Your task to perform on an android device: toggle translation in the chrome app Image 0: 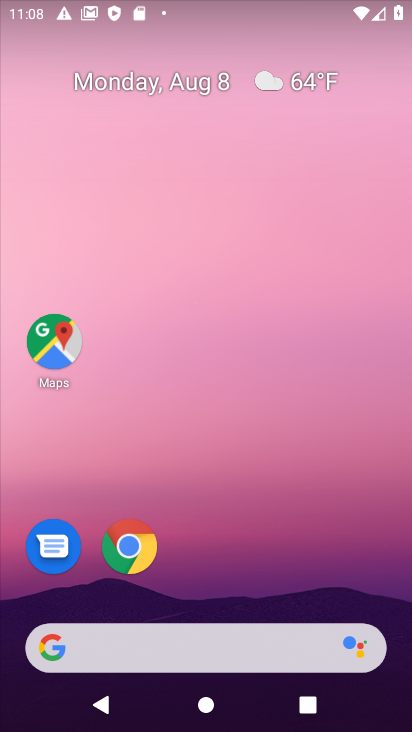
Step 0: press home button
Your task to perform on an android device: toggle translation in the chrome app Image 1: 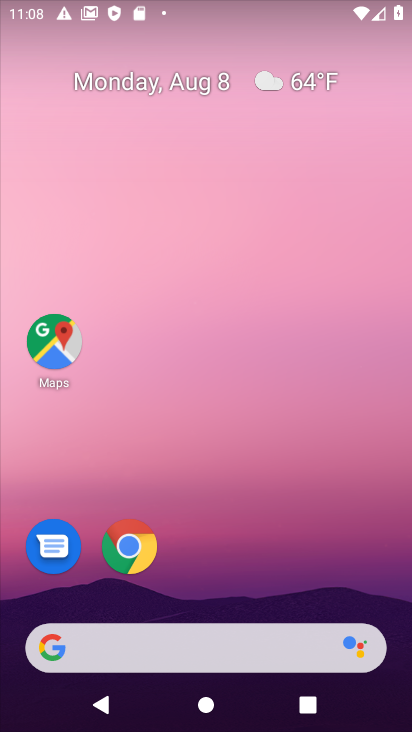
Step 1: click (211, 96)
Your task to perform on an android device: toggle translation in the chrome app Image 2: 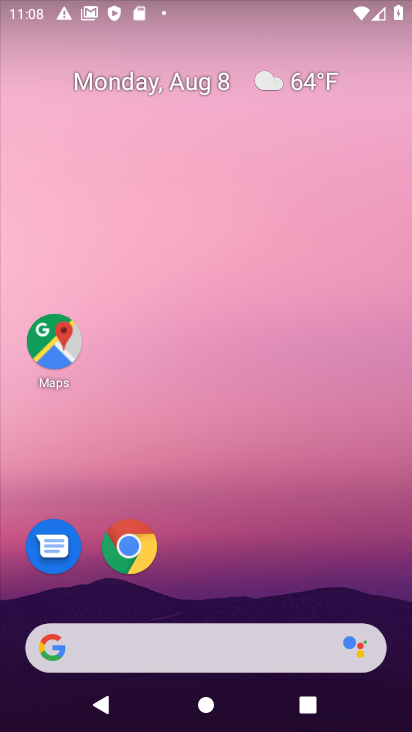
Step 2: drag from (220, 596) to (250, 1)
Your task to perform on an android device: toggle translation in the chrome app Image 3: 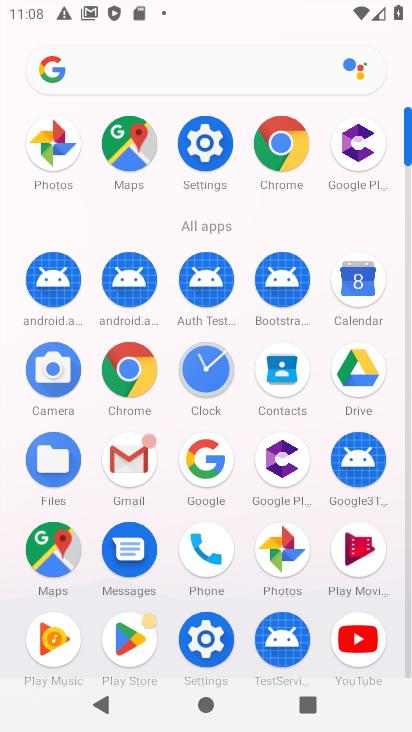
Step 3: click (124, 361)
Your task to perform on an android device: toggle translation in the chrome app Image 4: 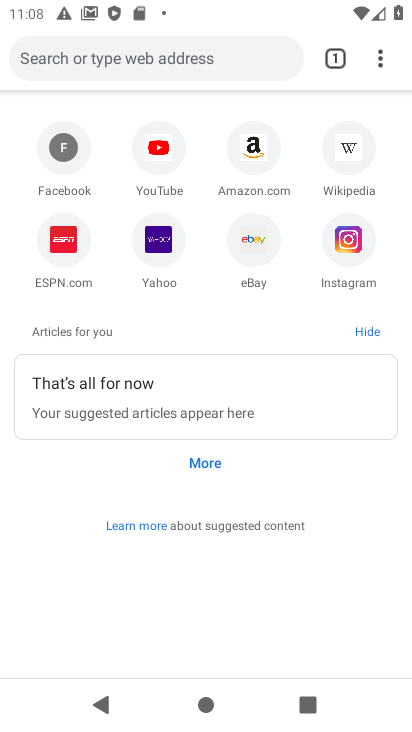
Step 4: click (375, 52)
Your task to perform on an android device: toggle translation in the chrome app Image 5: 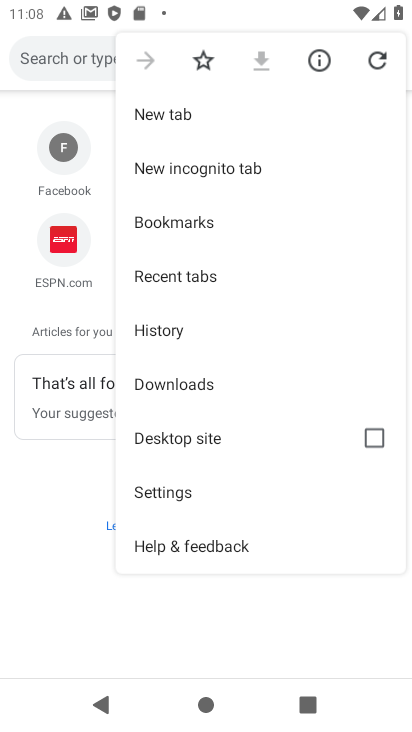
Step 5: click (206, 493)
Your task to perform on an android device: toggle translation in the chrome app Image 6: 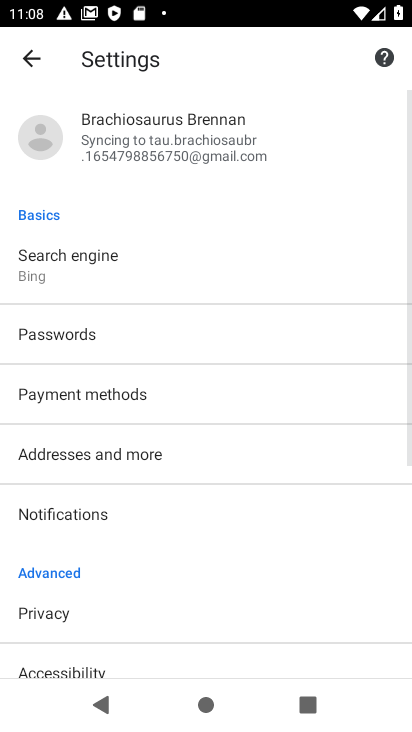
Step 6: drag from (151, 637) to (152, 67)
Your task to perform on an android device: toggle translation in the chrome app Image 7: 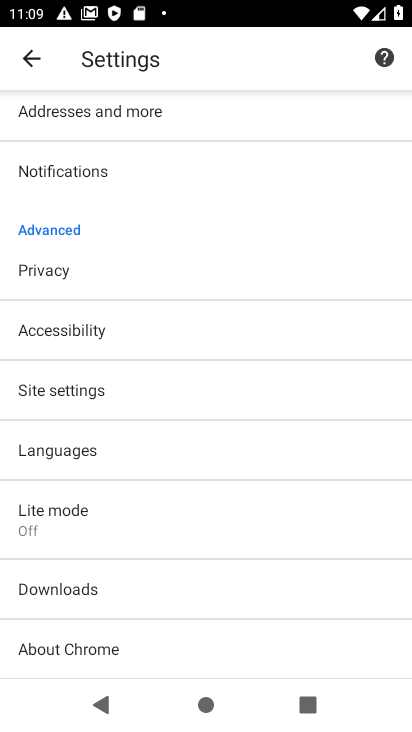
Step 7: click (119, 445)
Your task to perform on an android device: toggle translation in the chrome app Image 8: 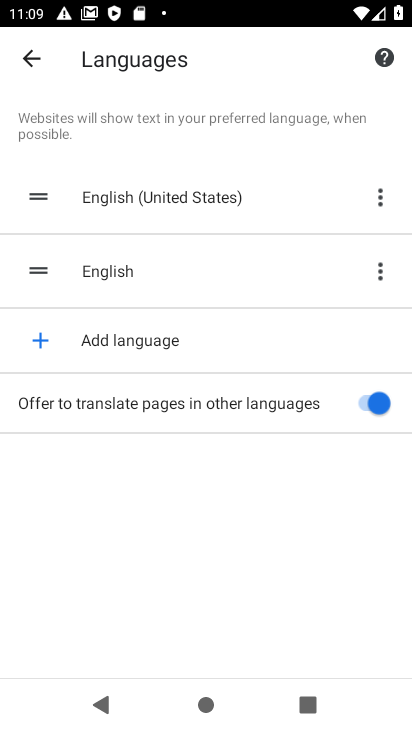
Step 8: click (366, 404)
Your task to perform on an android device: toggle translation in the chrome app Image 9: 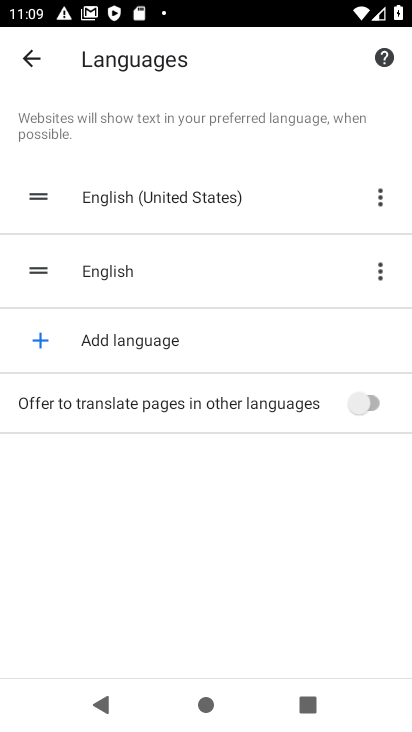
Step 9: task complete